Your task to perform on an android device: change the upload size in google photos Image 0: 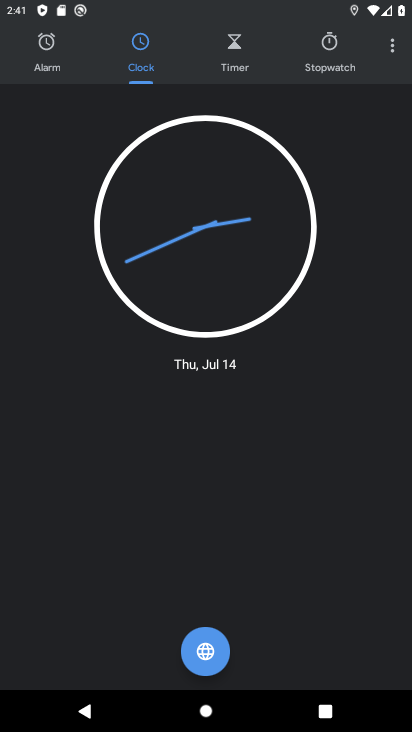
Step 0: press home button
Your task to perform on an android device: change the upload size in google photos Image 1: 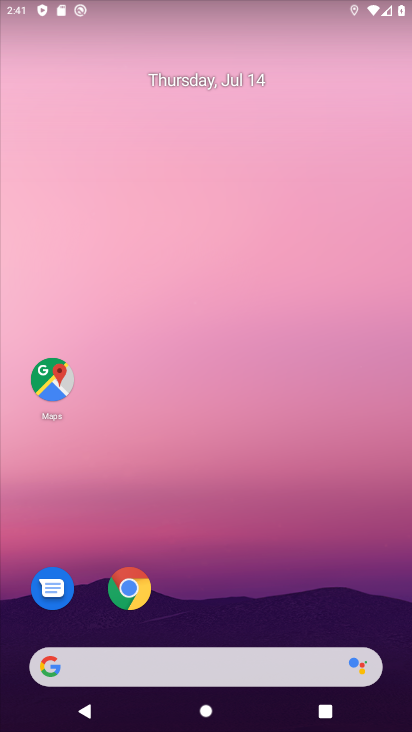
Step 1: drag from (202, 633) to (201, 54)
Your task to perform on an android device: change the upload size in google photos Image 2: 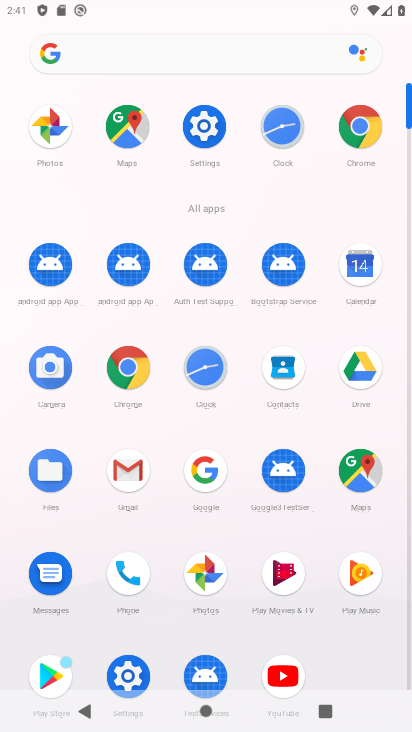
Step 2: click (205, 563)
Your task to perform on an android device: change the upload size in google photos Image 3: 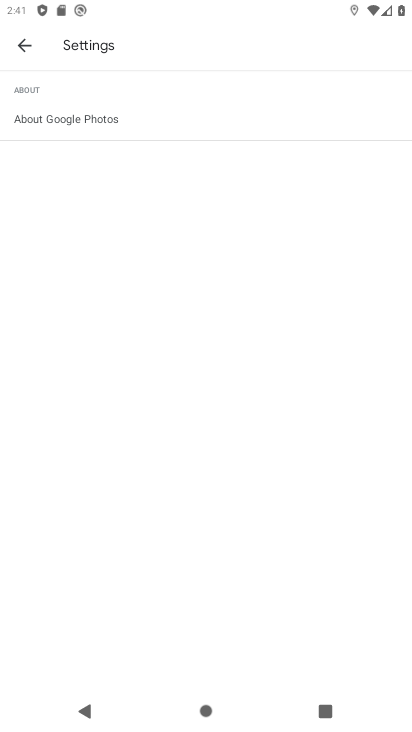
Step 3: click (22, 56)
Your task to perform on an android device: change the upload size in google photos Image 4: 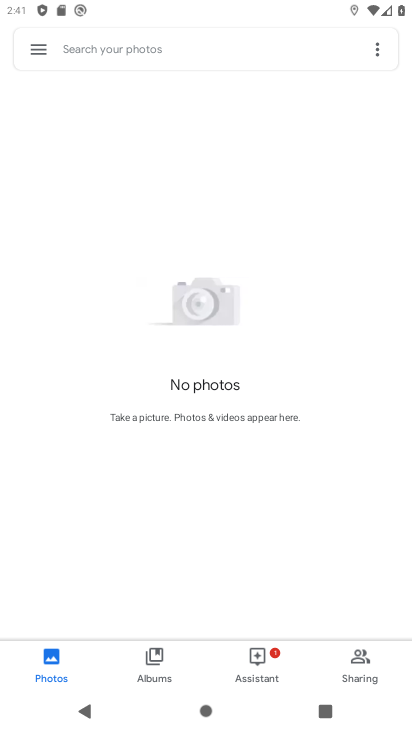
Step 4: click (33, 36)
Your task to perform on an android device: change the upload size in google photos Image 5: 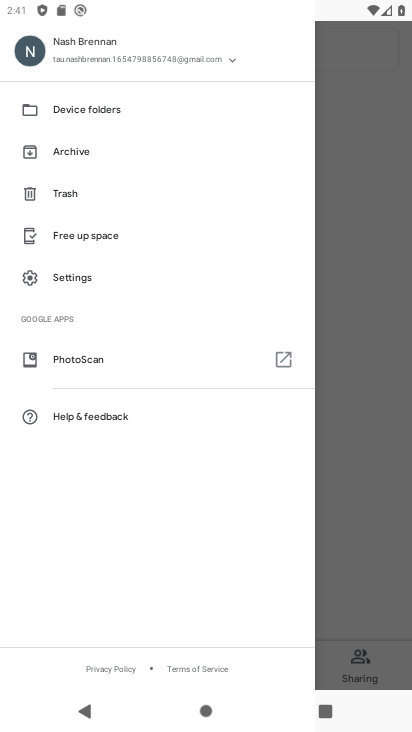
Step 5: click (50, 285)
Your task to perform on an android device: change the upload size in google photos Image 6: 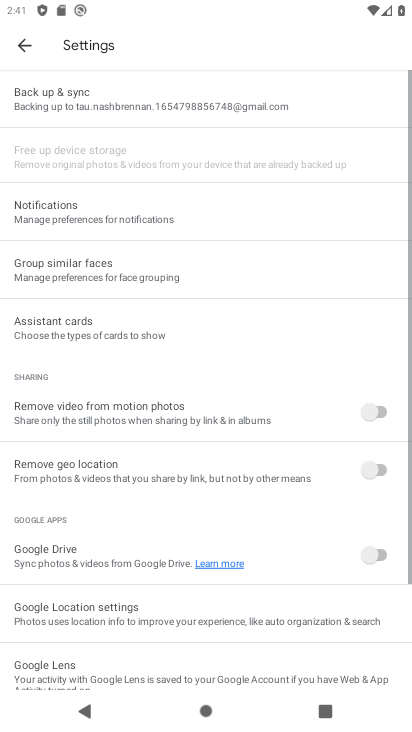
Step 6: click (32, 110)
Your task to perform on an android device: change the upload size in google photos Image 7: 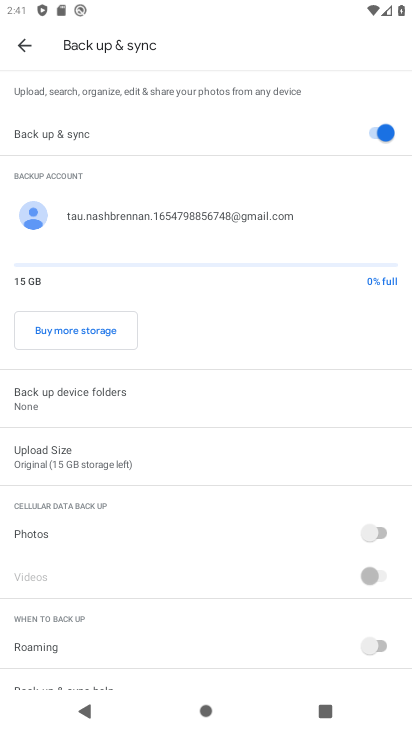
Step 7: click (94, 457)
Your task to perform on an android device: change the upload size in google photos Image 8: 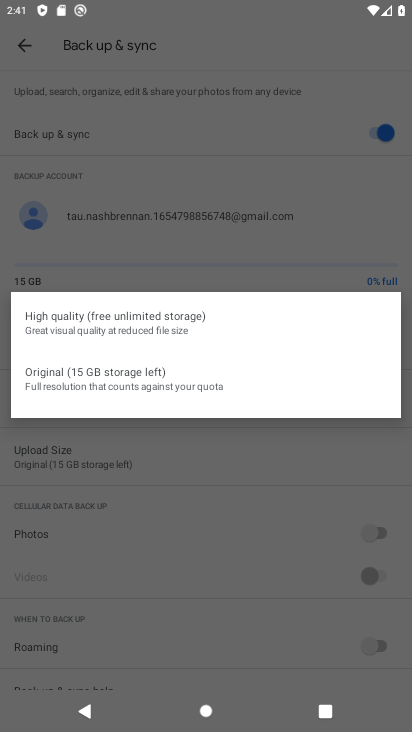
Step 8: click (86, 327)
Your task to perform on an android device: change the upload size in google photos Image 9: 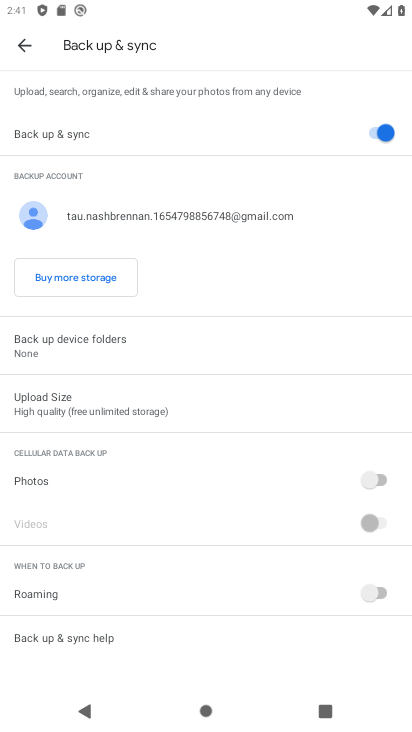
Step 9: task complete